Your task to perform on an android device: See recent photos Image 0: 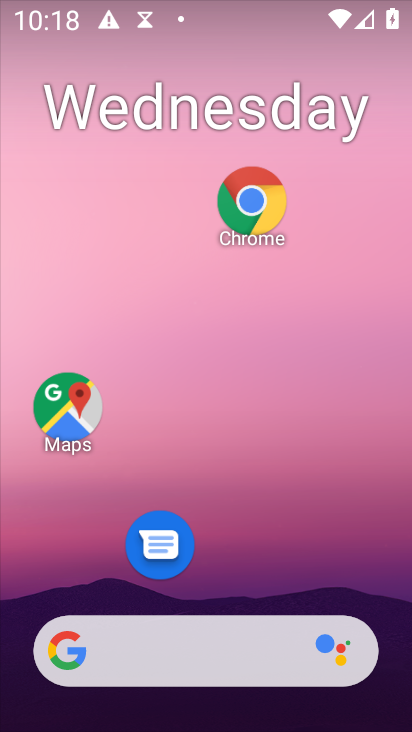
Step 0: drag from (276, 577) to (238, 4)
Your task to perform on an android device: See recent photos Image 1: 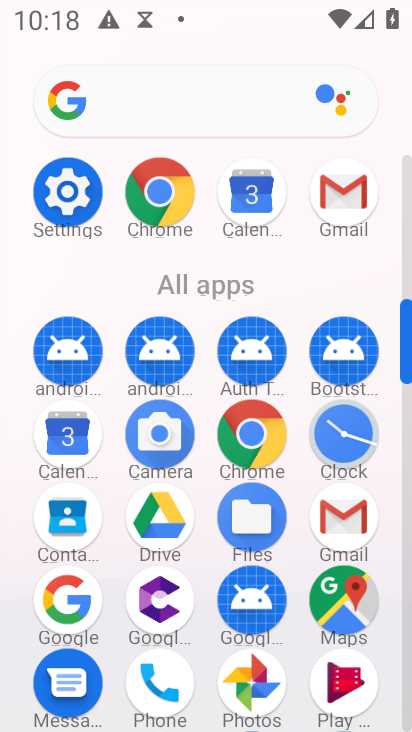
Step 1: click (250, 686)
Your task to perform on an android device: See recent photos Image 2: 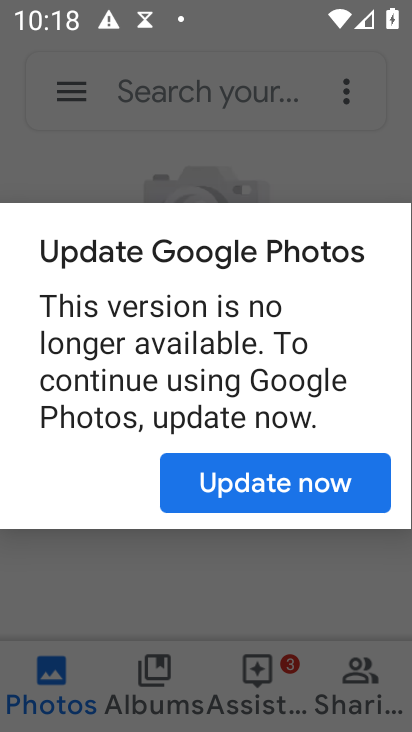
Step 2: click (322, 485)
Your task to perform on an android device: See recent photos Image 3: 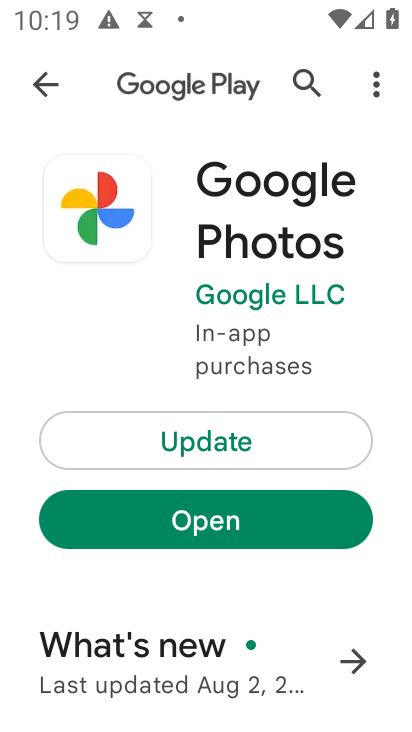
Step 3: click (280, 426)
Your task to perform on an android device: See recent photos Image 4: 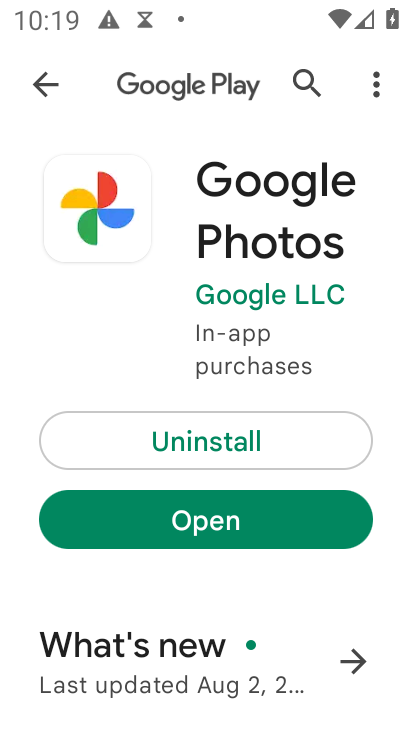
Step 4: click (276, 535)
Your task to perform on an android device: See recent photos Image 5: 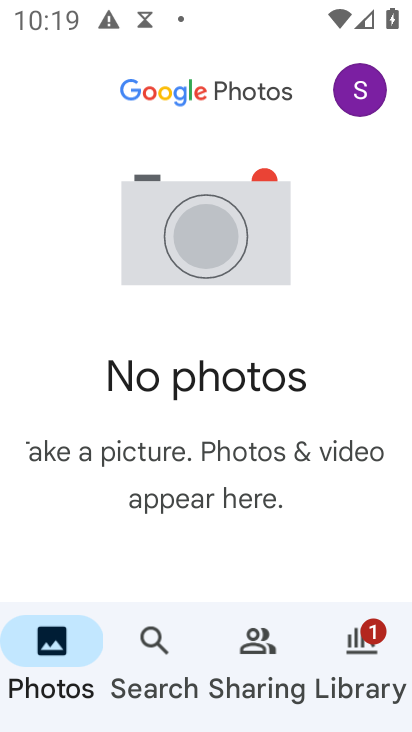
Step 5: task complete